Your task to perform on an android device: open app "Microsoft Excel" (install if not already installed) and go to login screen Image 0: 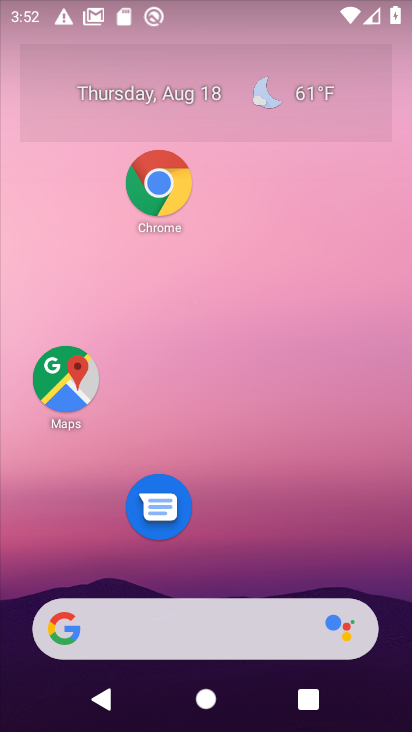
Step 0: drag from (246, 524) to (239, 2)
Your task to perform on an android device: open app "Microsoft Excel" (install if not already installed) and go to login screen Image 1: 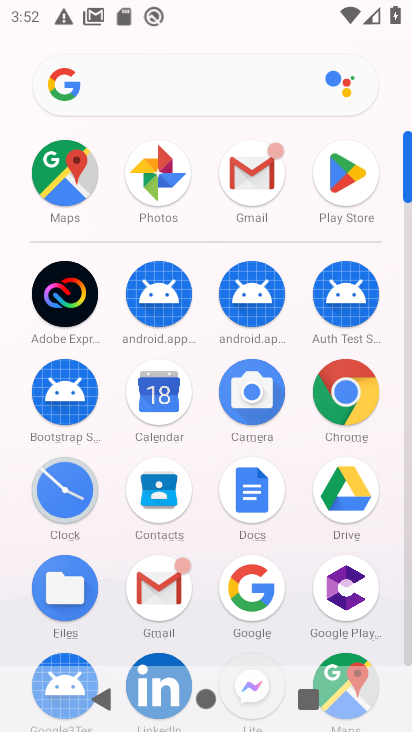
Step 1: click (345, 211)
Your task to perform on an android device: open app "Microsoft Excel" (install if not already installed) and go to login screen Image 2: 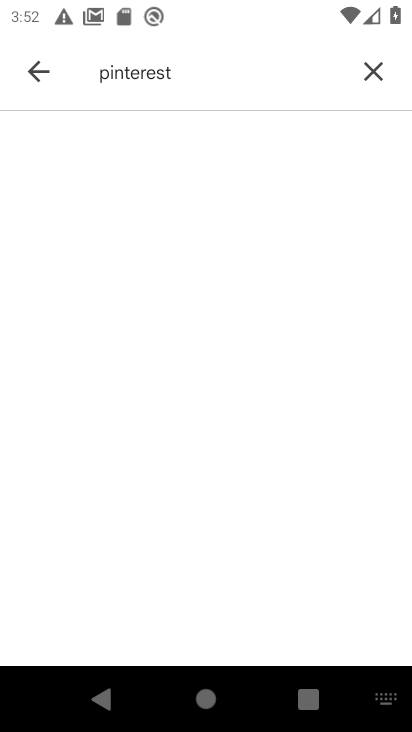
Step 2: click (380, 69)
Your task to perform on an android device: open app "Microsoft Excel" (install if not already installed) and go to login screen Image 3: 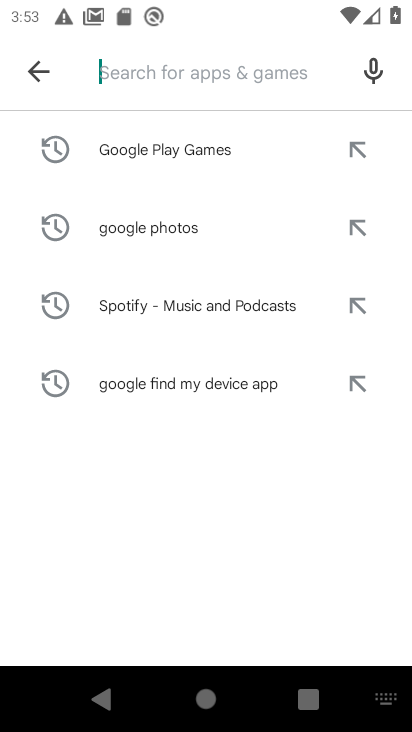
Step 3: click (126, 74)
Your task to perform on an android device: open app "Microsoft Excel" (install if not already installed) and go to login screen Image 4: 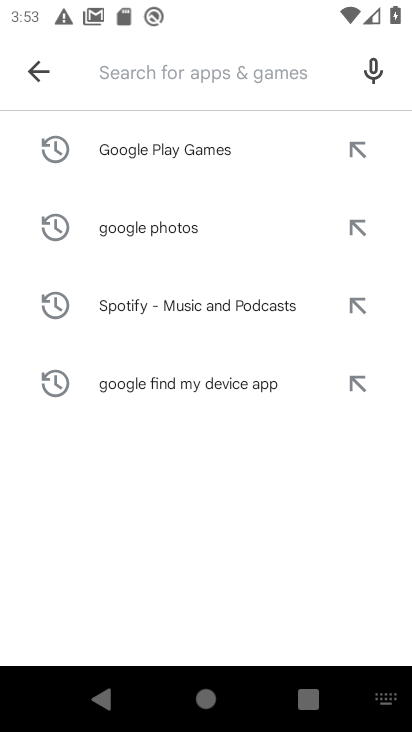
Step 4: type "Microsoft"
Your task to perform on an android device: open app "Microsoft Excel" (install if not already installed) and go to login screen Image 5: 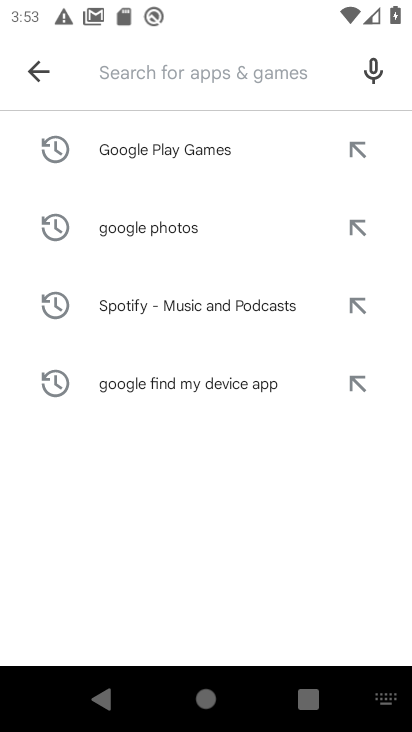
Step 5: click (213, 518)
Your task to perform on an android device: open app "Microsoft Excel" (install if not already installed) and go to login screen Image 6: 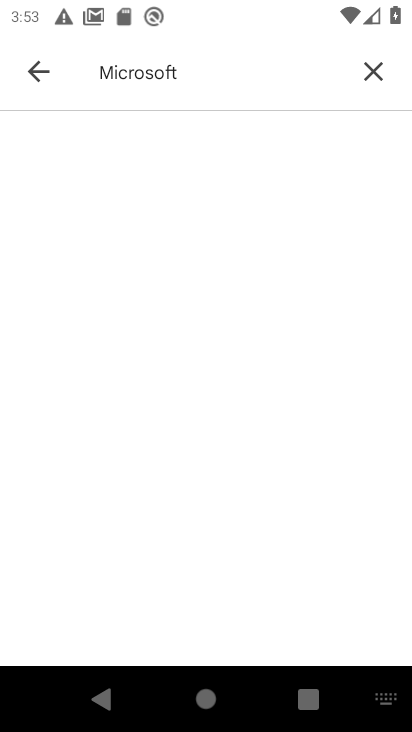
Step 6: task complete